Your task to perform on an android device: add a label to a message in the gmail app Image 0: 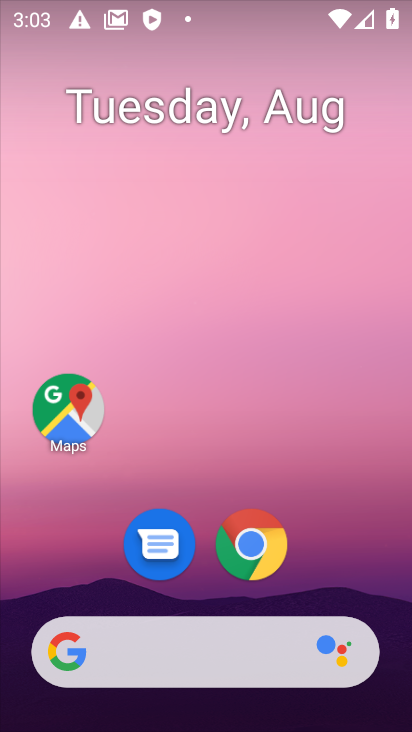
Step 0: drag from (379, 614) to (179, 23)
Your task to perform on an android device: add a label to a message in the gmail app Image 1: 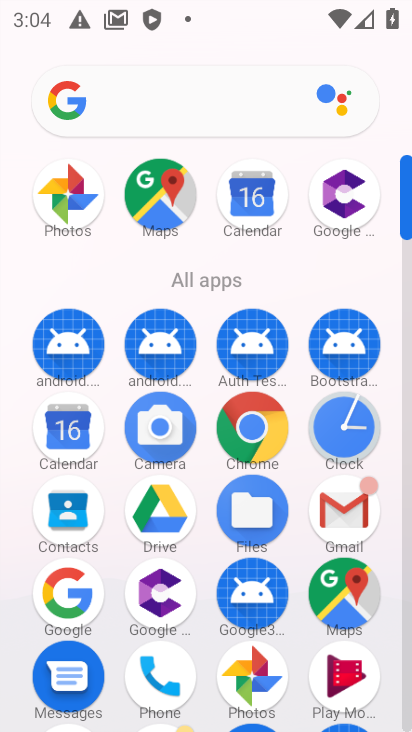
Step 1: click (339, 509)
Your task to perform on an android device: add a label to a message in the gmail app Image 2: 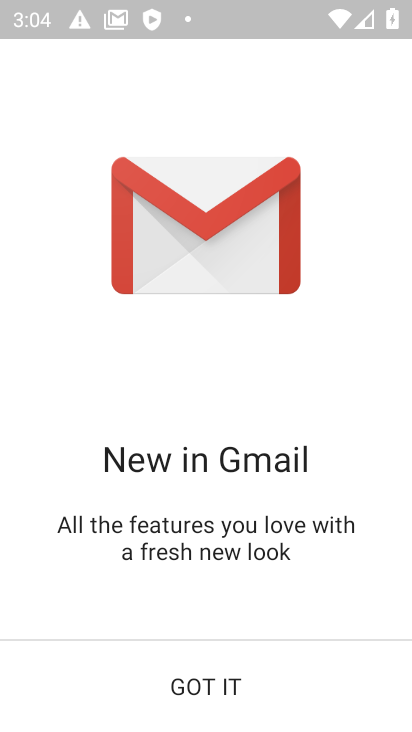
Step 2: click (182, 664)
Your task to perform on an android device: add a label to a message in the gmail app Image 3: 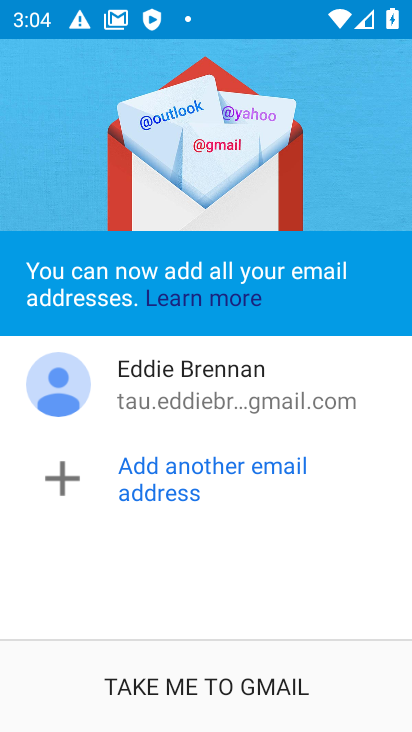
Step 3: click (182, 664)
Your task to perform on an android device: add a label to a message in the gmail app Image 4: 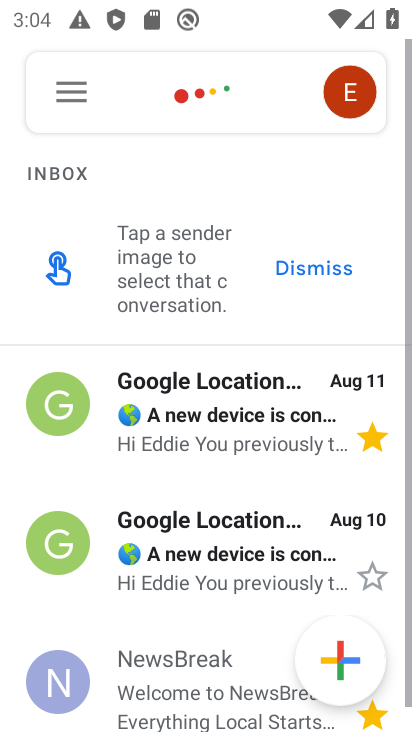
Step 4: task complete